Your task to perform on an android device: Open wifi settings Image 0: 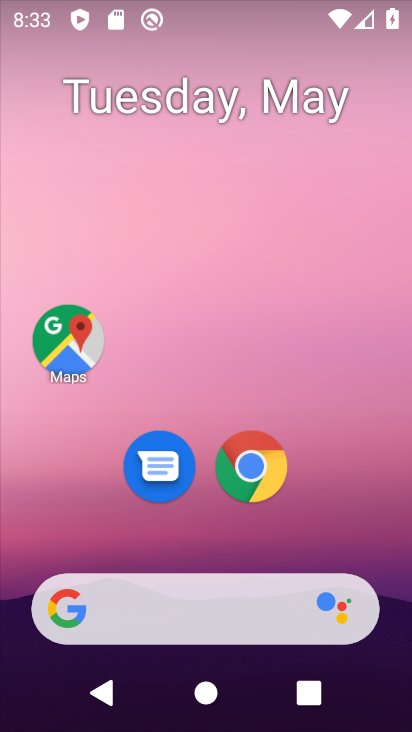
Step 0: press home button
Your task to perform on an android device: Open wifi settings Image 1: 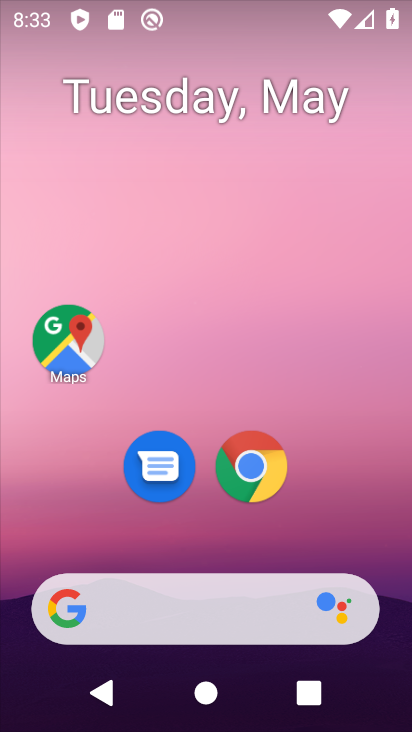
Step 1: drag from (209, 534) to (209, 46)
Your task to perform on an android device: Open wifi settings Image 2: 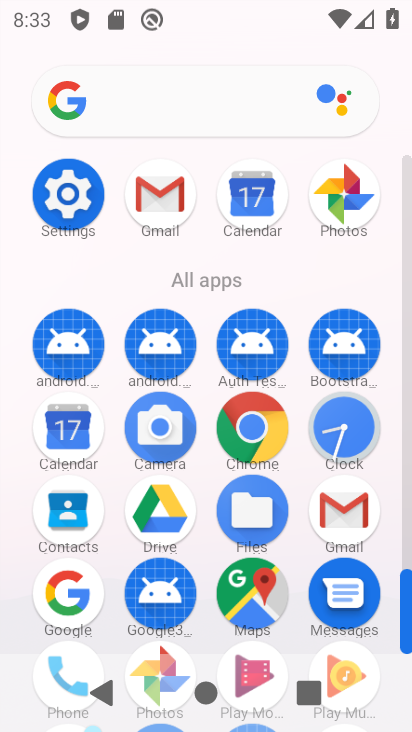
Step 2: click (63, 184)
Your task to perform on an android device: Open wifi settings Image 3: 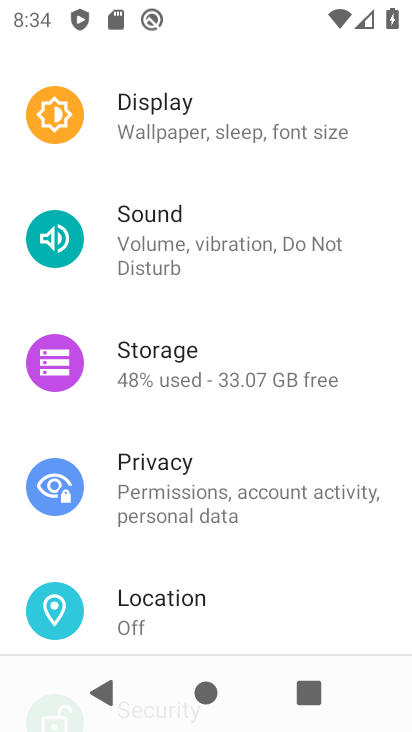
Step 3: drag from (228, 184) to (206, 665)
Your task to perform on an android device: Open wifi settings Image 4: 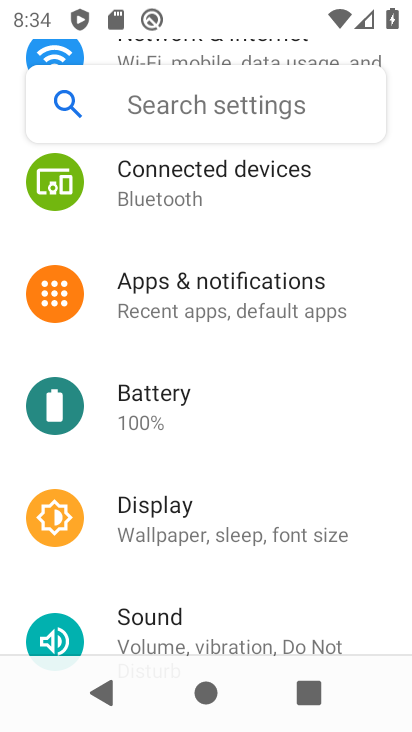
Step 4: drag from (214, 191) to (227, 653)
Your task to perform on an android device: Open wifi settings Image 5: 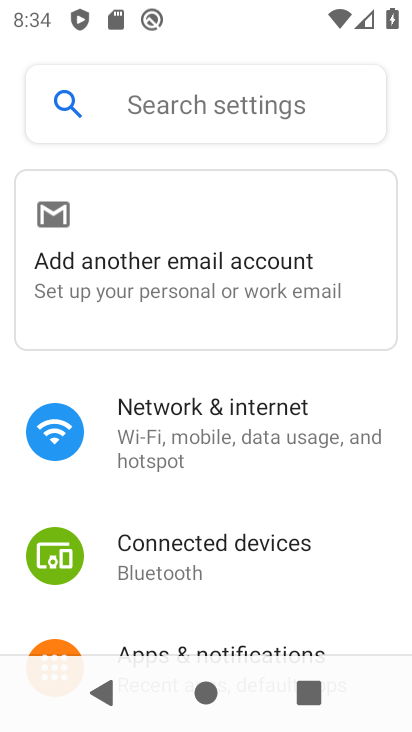
Step 5: click (233, 436)
Your task to perform on an android device: Open wifi settings Image 6: 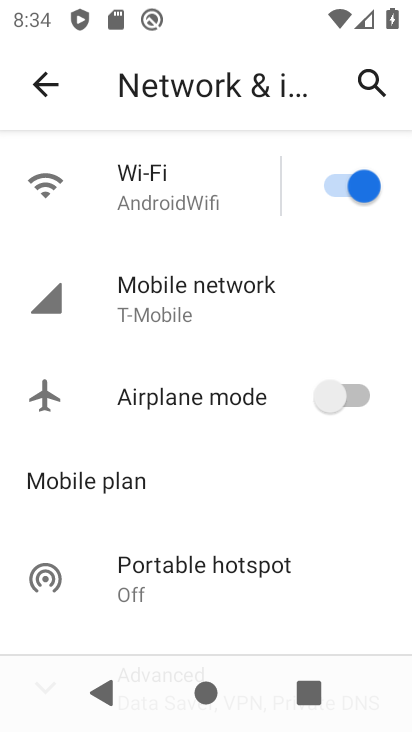
Step 6: click (241, 185)
Your task to perform on an android device: Open wifi settings Image 7: 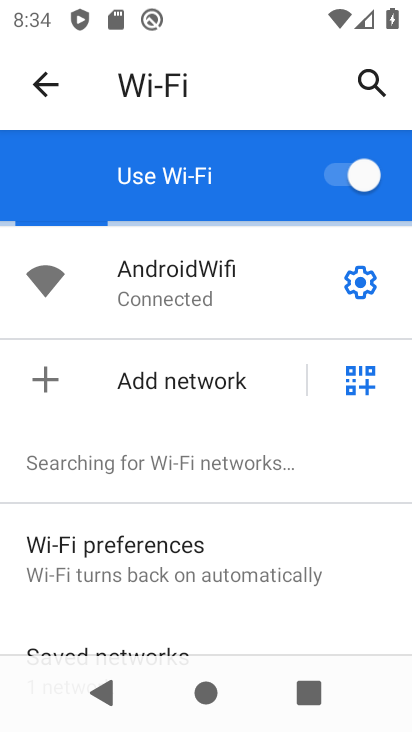
Step 7: task complete